Your task to perform on an android device: toggle wifi Image 0: 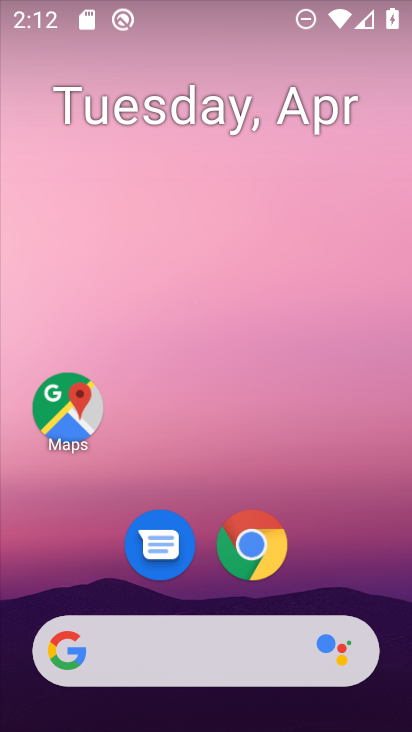
Step 0: click (351, 162)
Your task to perform on an android device: toggle wifi Image 1: 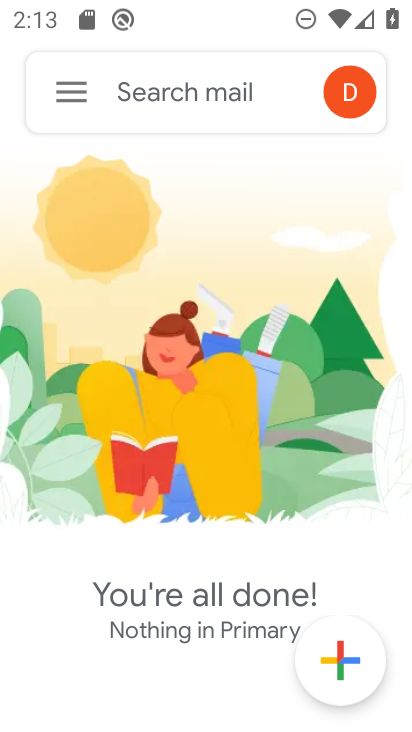
Step 1: press home button
Your task to perform on an android device: toggle wifi Image 2: 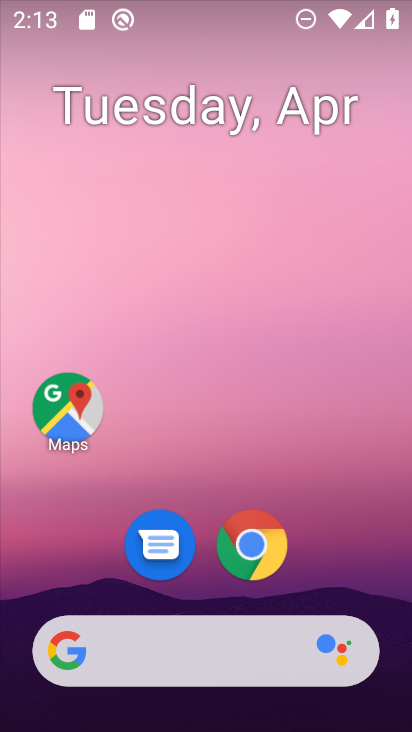
Step 2: drag from (399, 513) to (287, 40)
Your task to perform on an android device: toggle wifi Image 3: 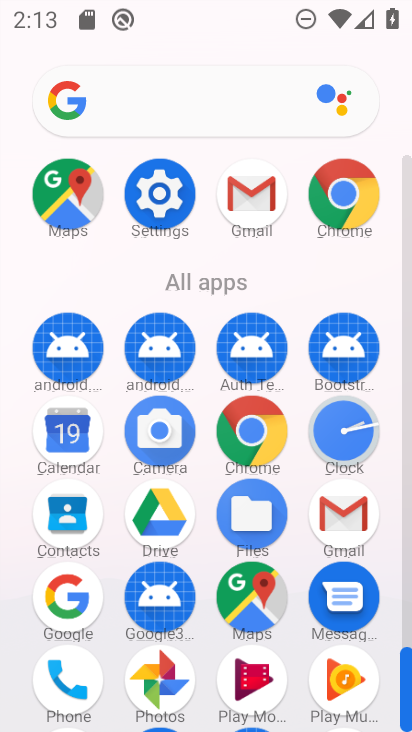
Step 3: click (183, 170)
Your task to perform on an android device: toggle wifi Image 4: 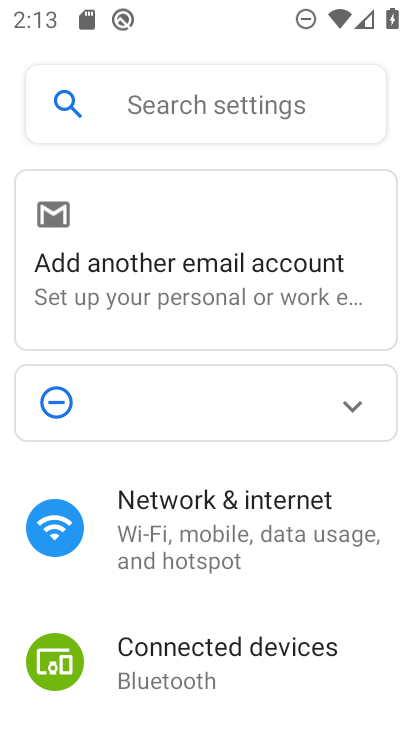
Step 4: click (249, 533)
Your task to perform on an android device: toggle wifi Image 5: 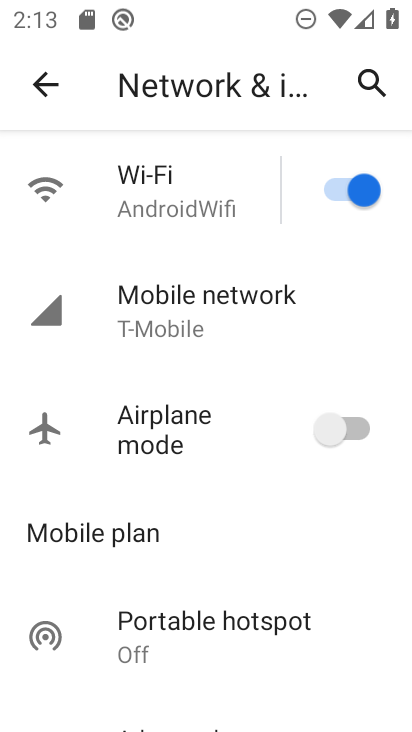
Step 5: click (341, 193)
Your task to perform on an android device: toggle wifi Image 6: 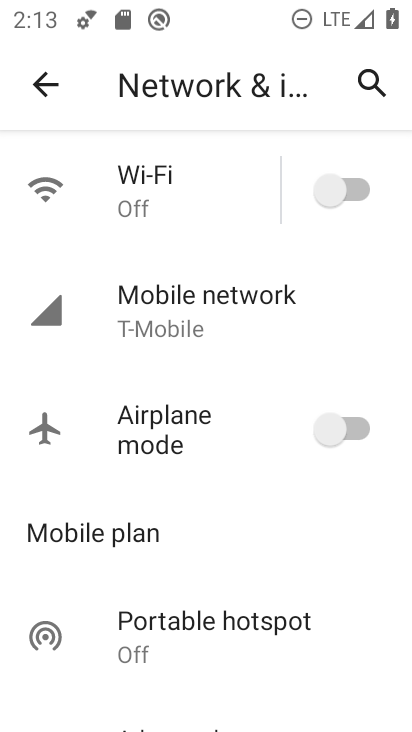
Step 6: task complete